Your task to perform on an android device: open app "Instagram" (install if not already installed) Image 0: 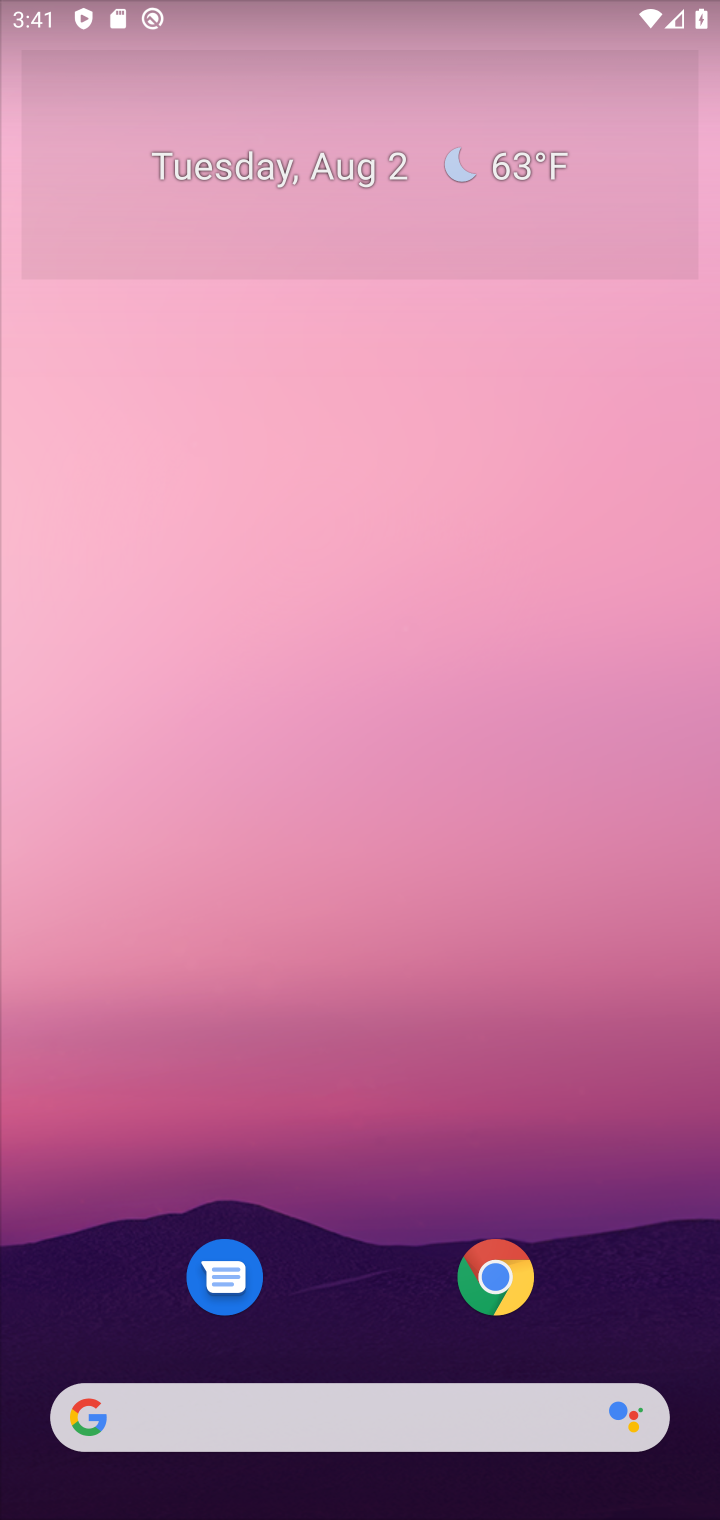
Step 0: drag from (408, 354) to (457, 90)
Your task to perform on an android device: open app "Instagram" (install if not already installed) Image 1: 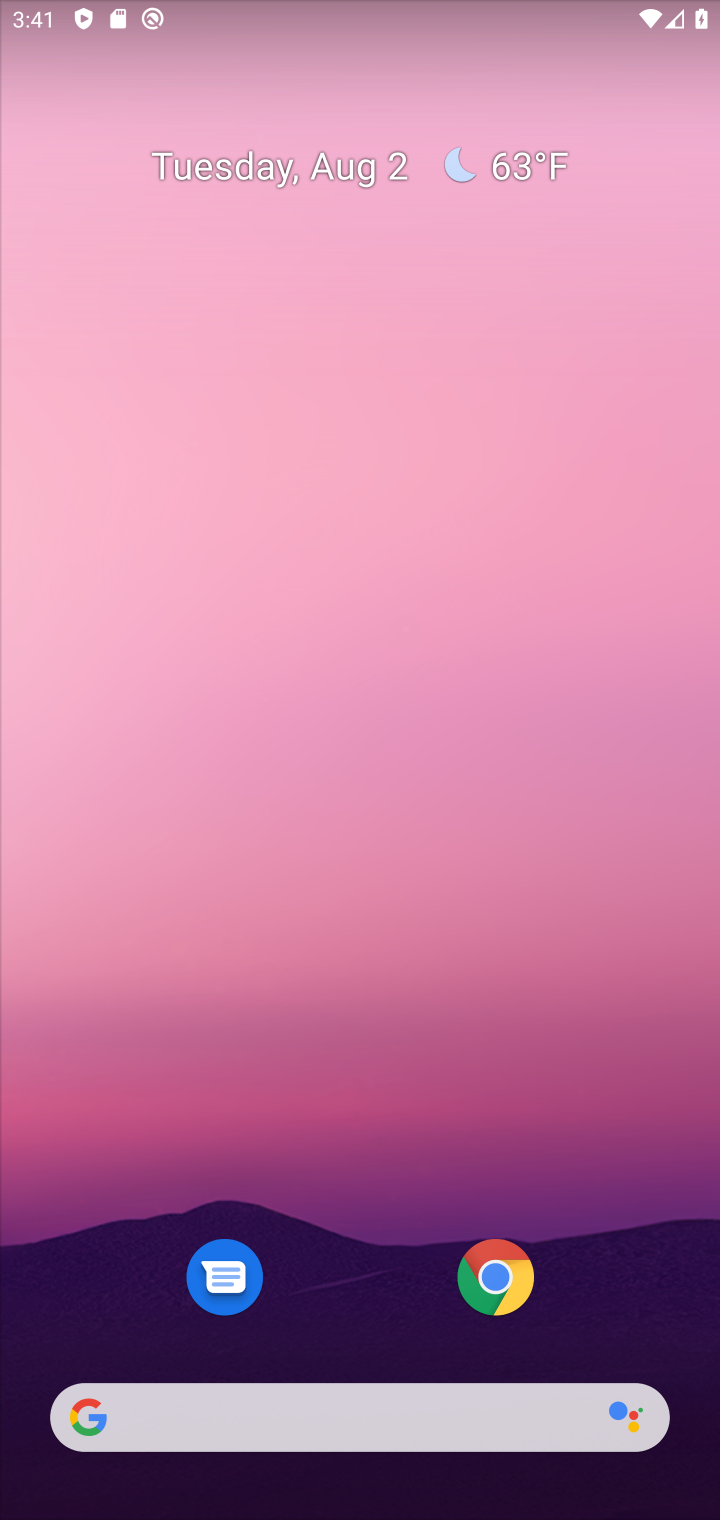
Step 1: drag from (389, 1267) to (378, 90)
Your task to perform on an android device: open app "Instagram" (install if not already installed) Image 2: 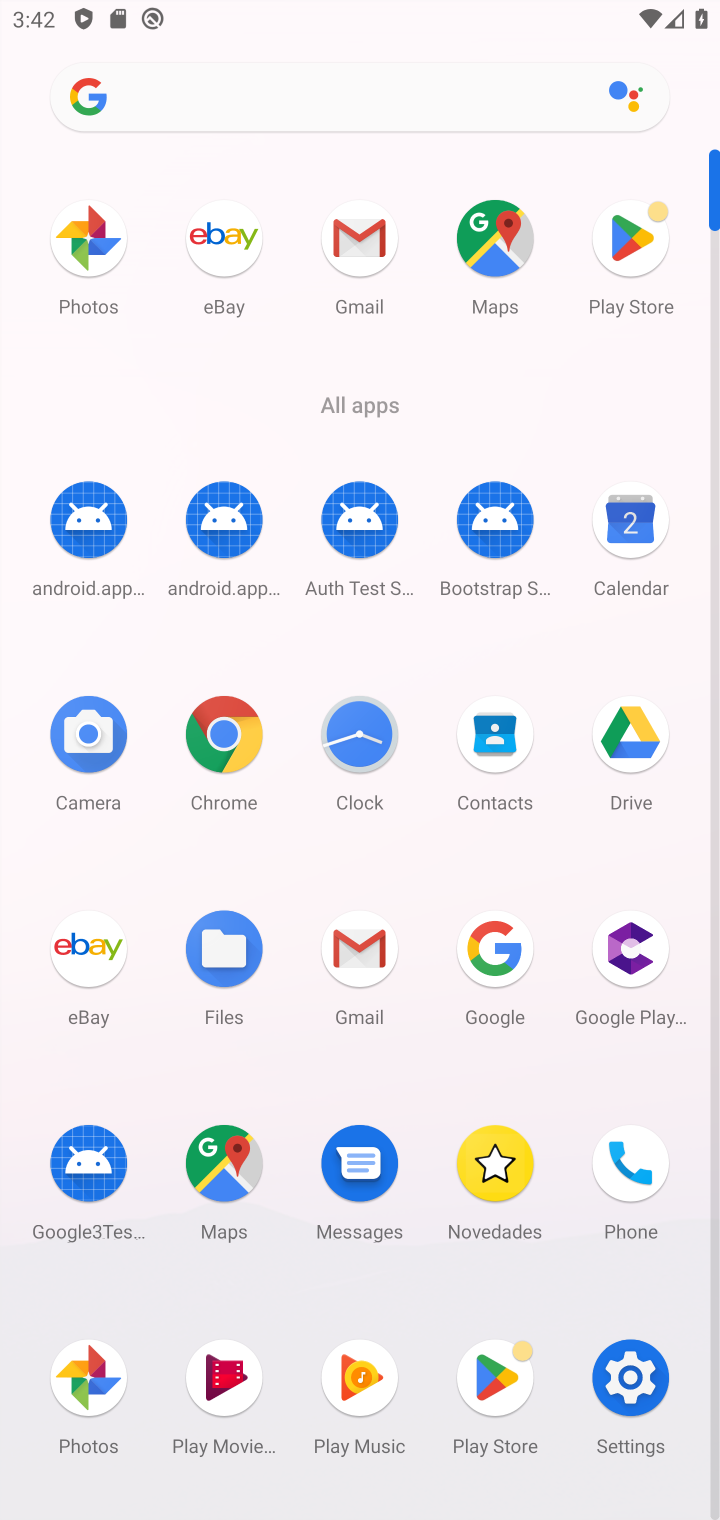
Step 2: drag from (429, 1006) to (407, 478)
Your task to perform on an android device: open app "Instagram" (install if not already installed) Image 3: 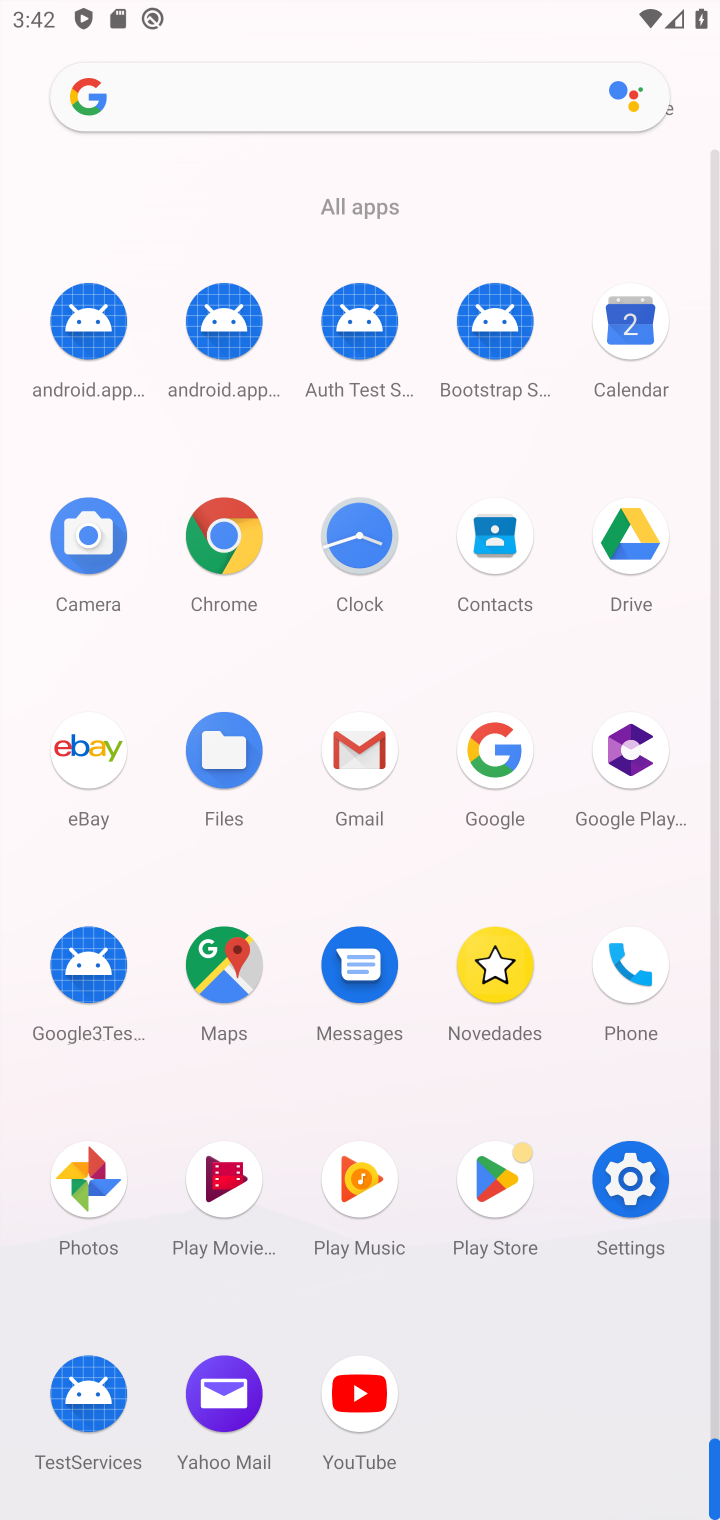
Step 3: click (502, 1176)
Your task to perform on an android device: open app "Instagram" (install if not already installed) Image 4: 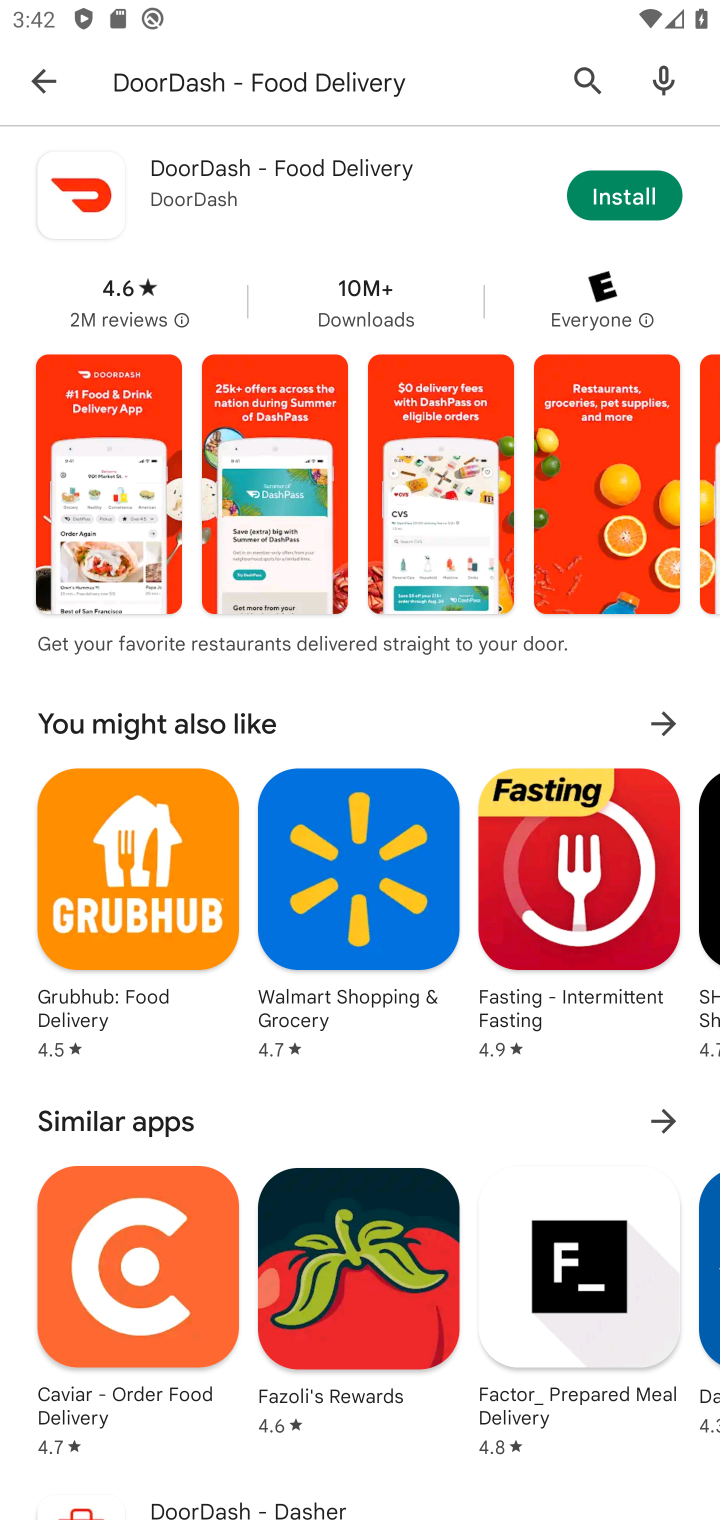
Step 4: click (238, 62)
Your task to perform on an android device: open app "Instagram" (install if not already installed) Image 5: 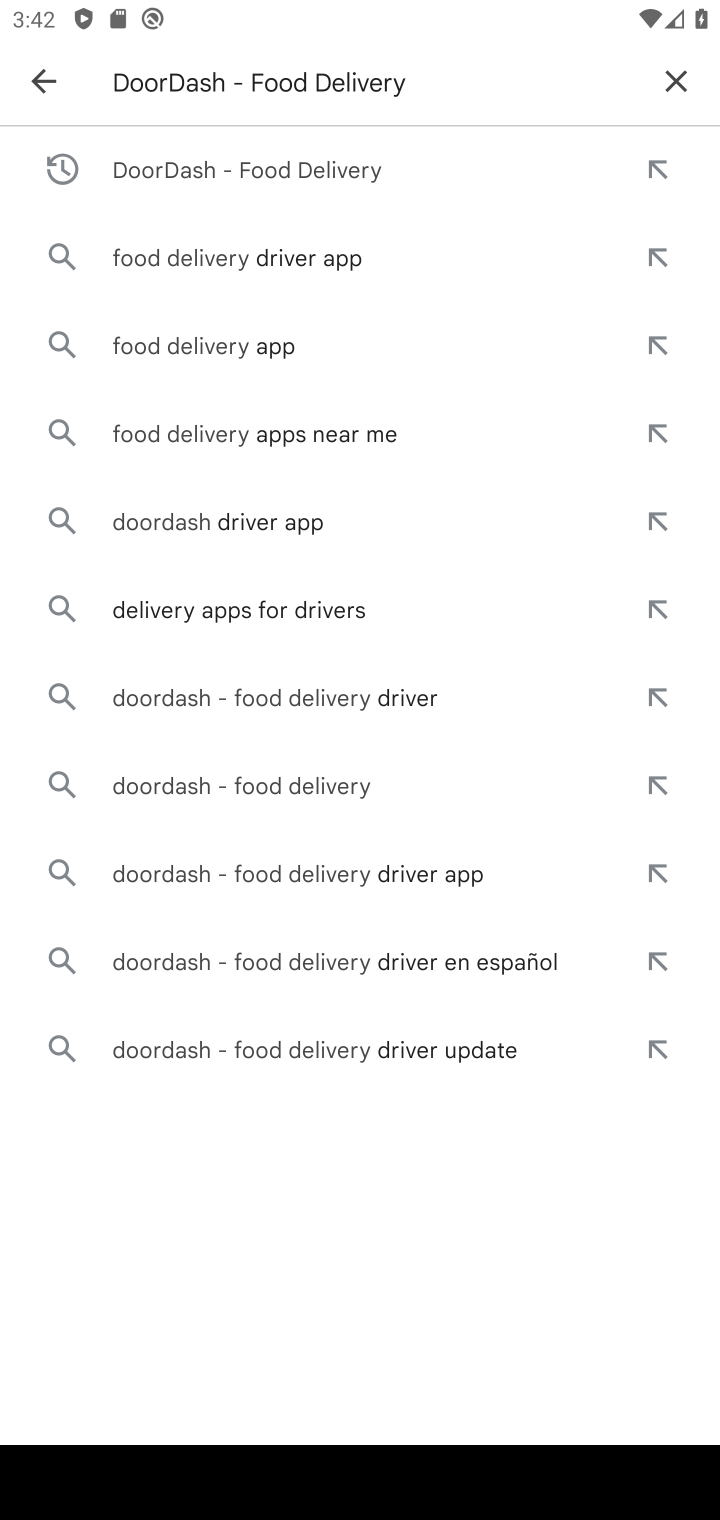
Step 5: click (681, 88)
Your task to perform on an android device: open app "Instagram" (install if not already installed) Image 6: 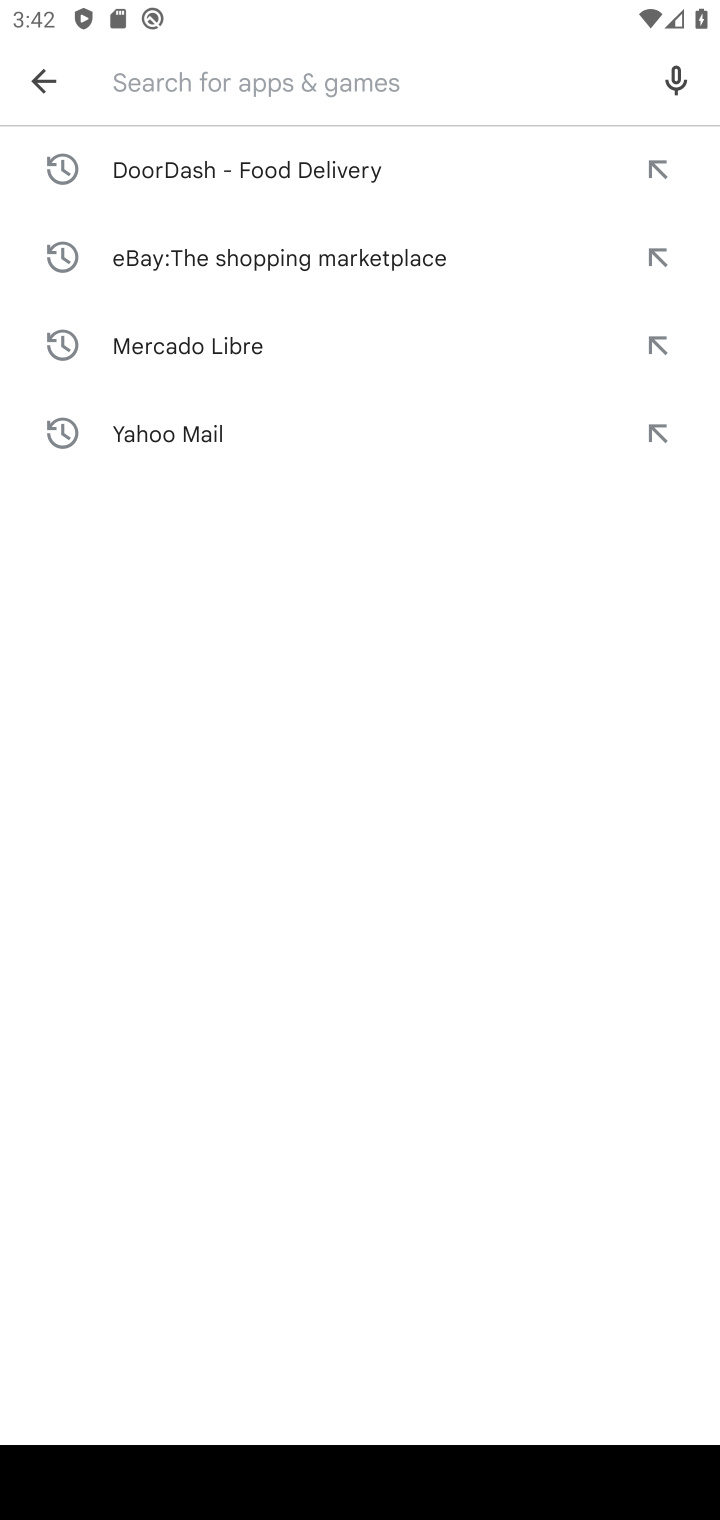
Step 6: type "Instagram"
Your task to perform on an android device: open app "Instagram" (install if not already installed) Image 7: 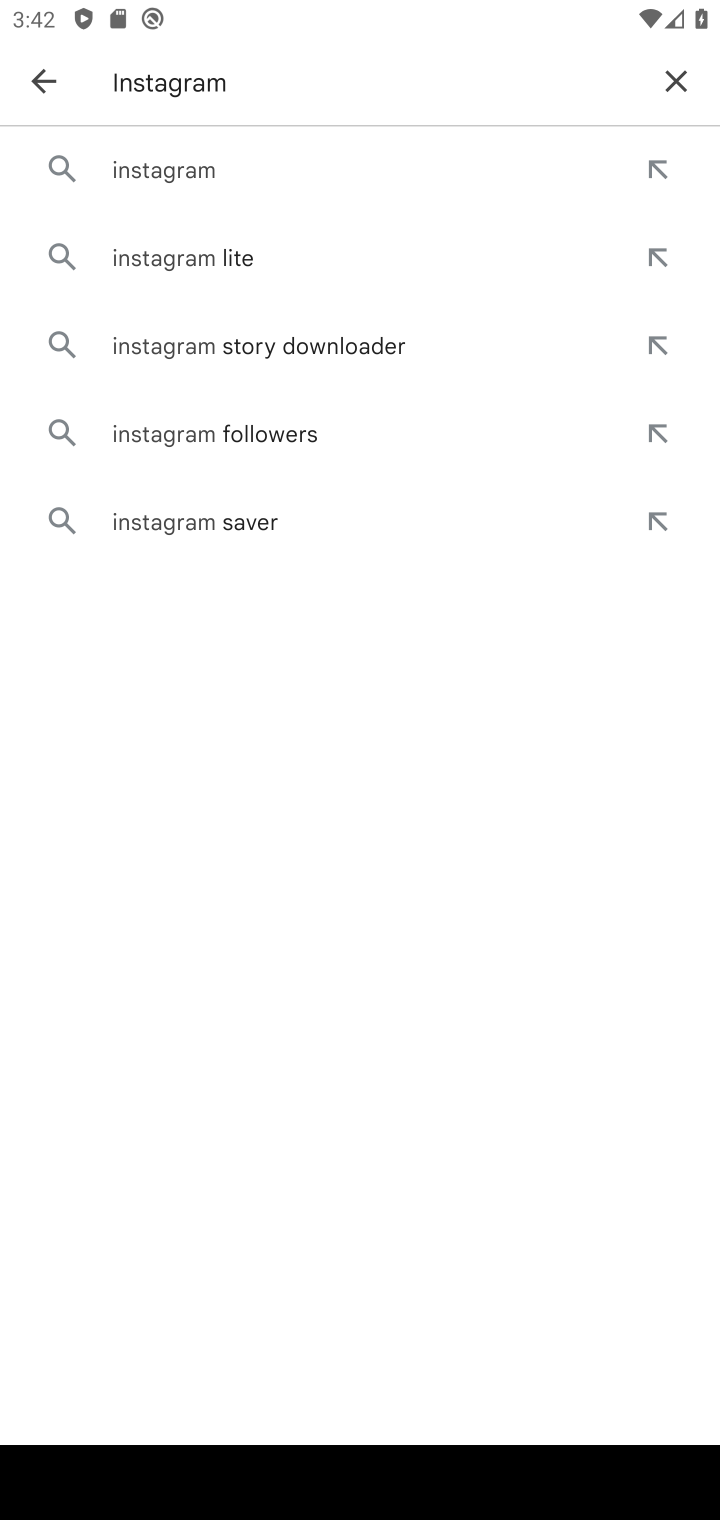
Step 7: press enter
Your task to perform on an android device: open app "Instagram" (install if not already installed) Image 8: 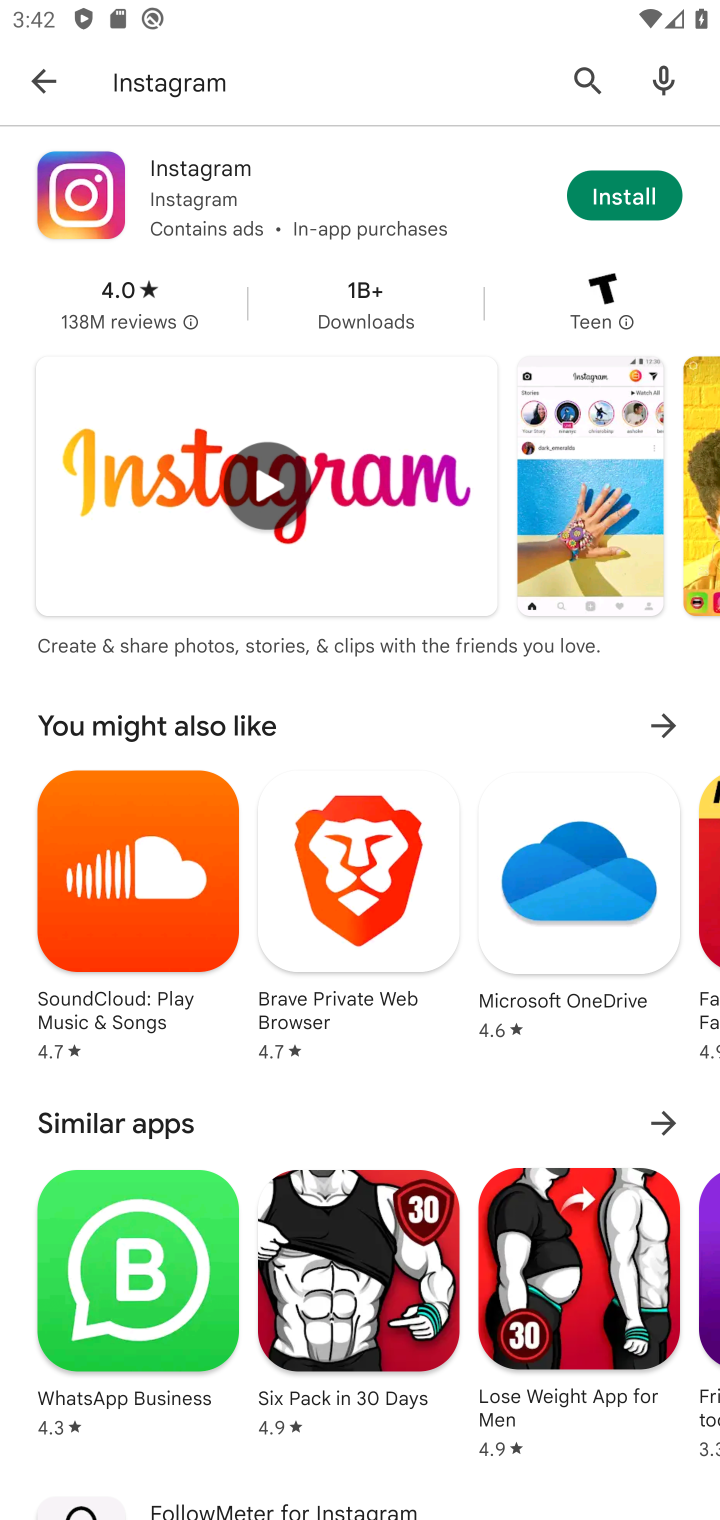
Step 8: click (641, 194)
Your task to perform on an android device: open app "Instagram" (install if not already installed) Image 9: 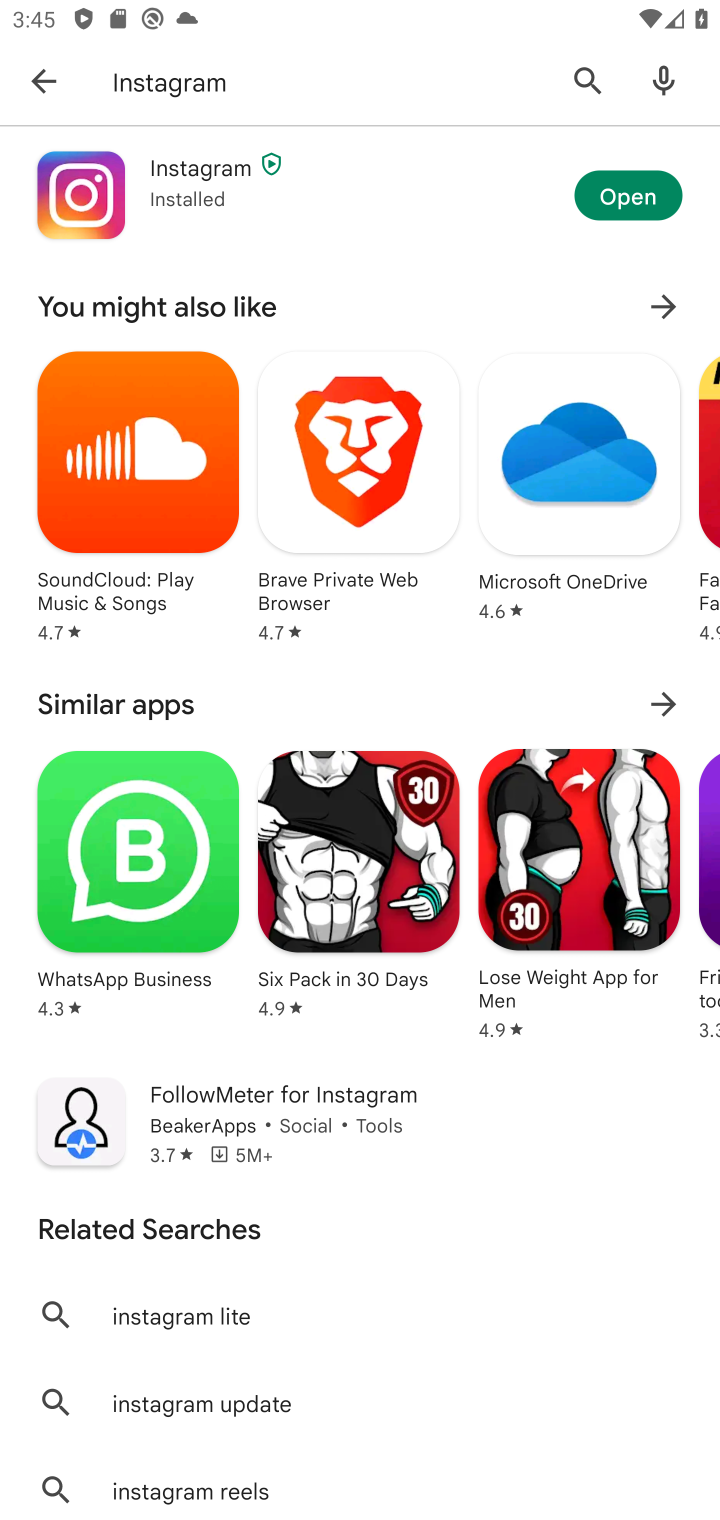
Step 9: click (634, 189)
Your task to perform on an android device: open app "Instagram" (install if not already installed) Image 10: 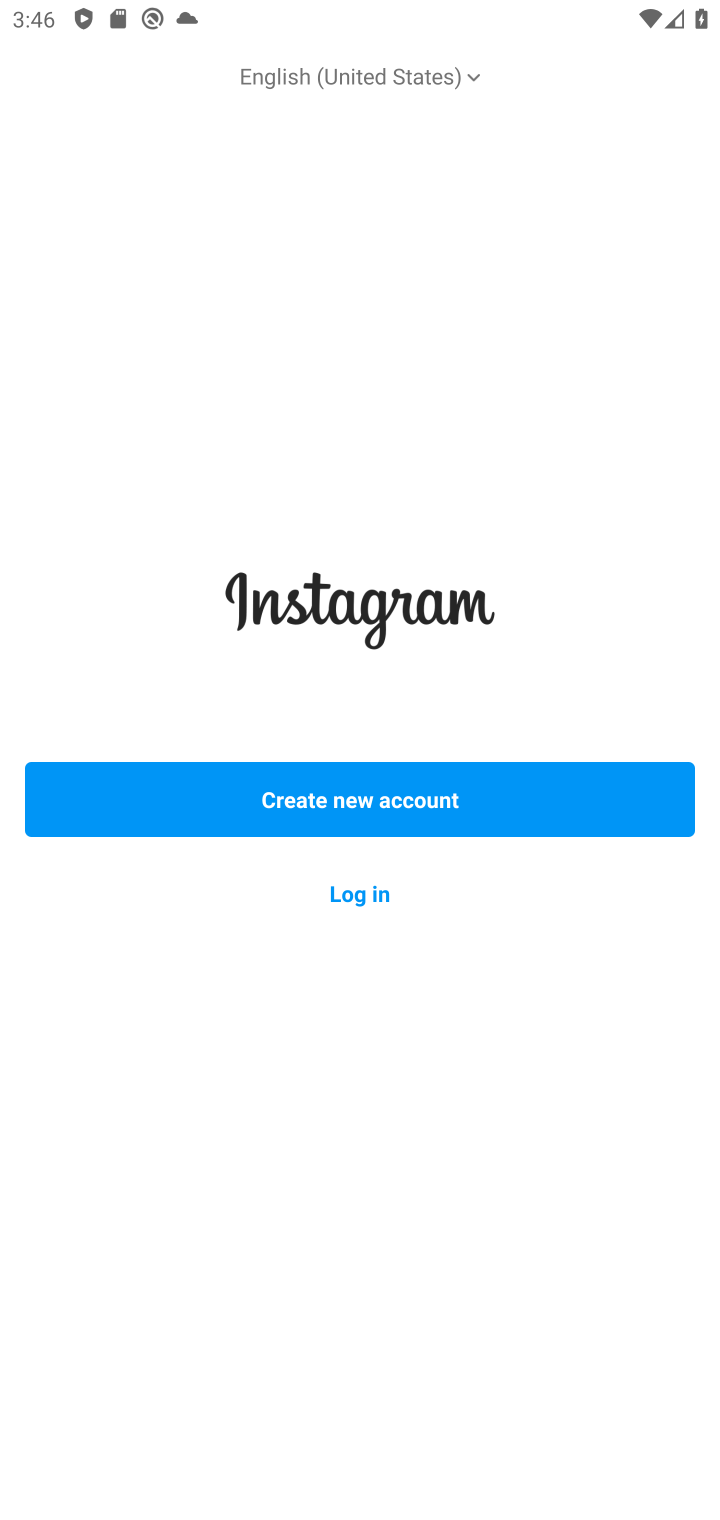
Step 10: task complete